Your task to perform on an android device: check the backup settings in the google photos Image 0: 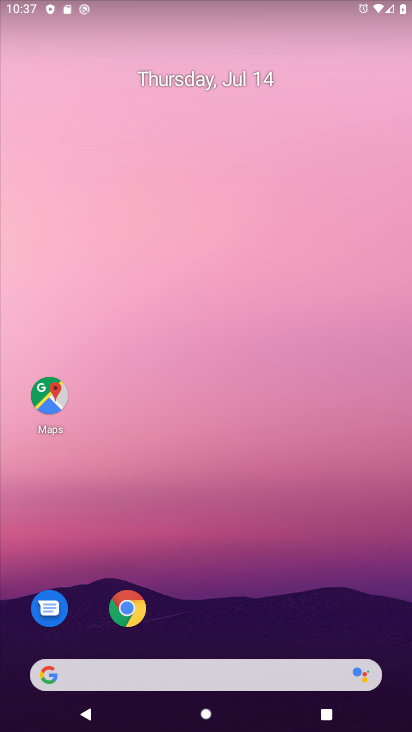
Step 0: drag from (216, 575) to (246, 5)
Your task to perform on an android device: check the backup settings in the google photos Image 1: 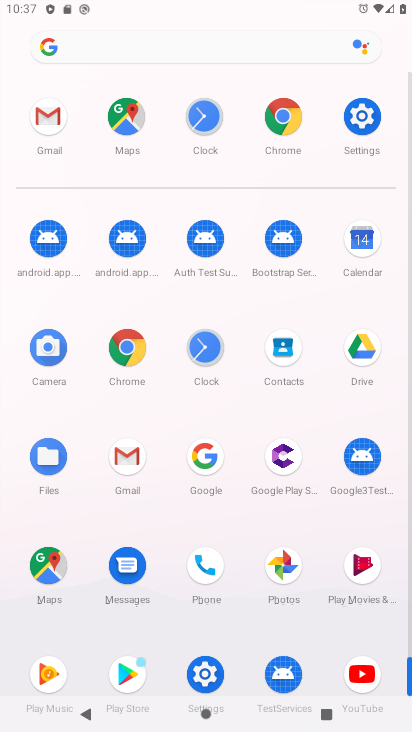
Step 1: click (283, 566)
Your task to perform on an android device: check the backup settings in the google photos Image 2: 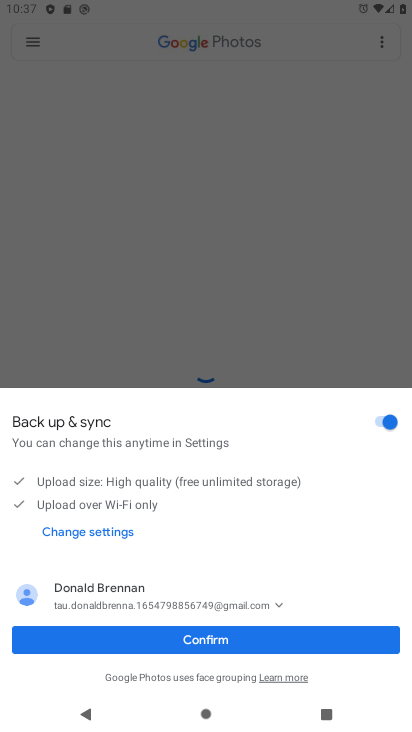
Step 2: click (198, 646)
Your task to perform on an android device: check the backup settings in the google photos Image 3: 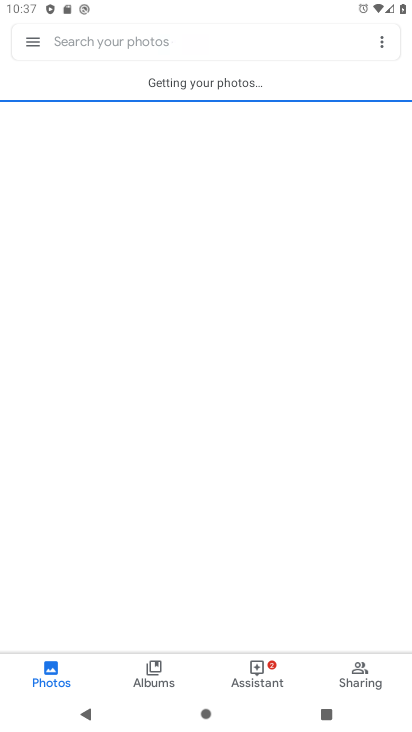
Step 3: click (34, 45)
Your task to perform on an android device: check the backup settings in the google photos Image 4: 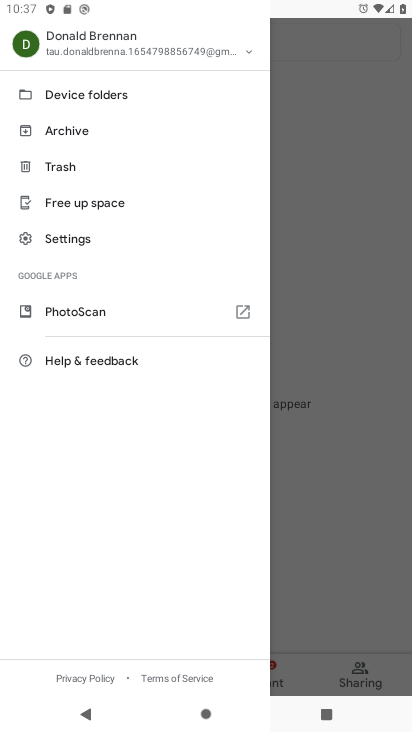
Step 4: click (77, 243)
Your task to perform on an android device: check the backup settings in the google photos Image 5: 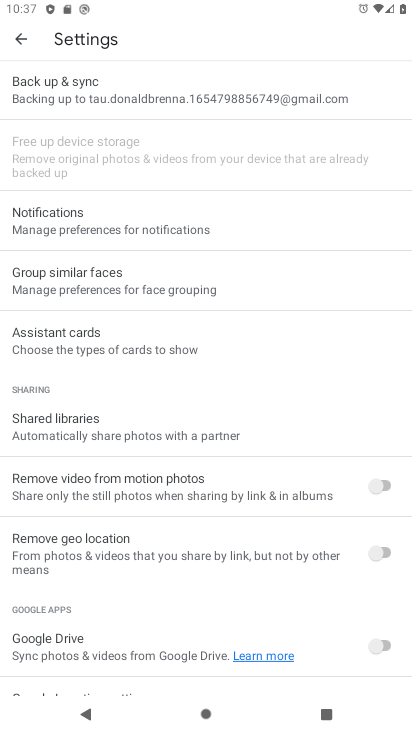
Step 5: click (114, 95)
Your task to perform on an android device: check the backup settings in the google photos Image 6: 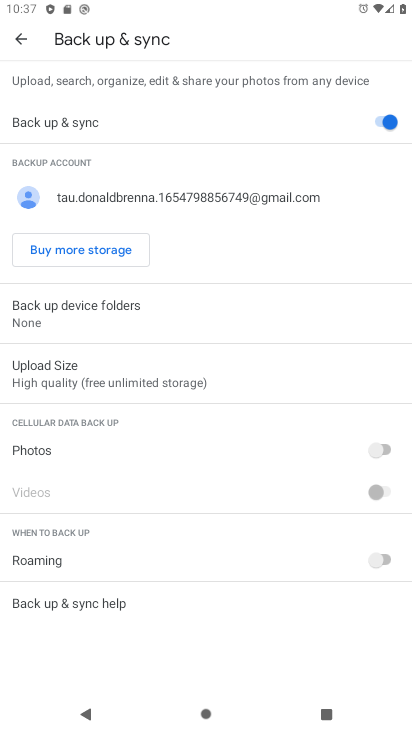
Step 6: task complete